Your task to perform on an android device: Do I have any events tomorrow? Image 0: 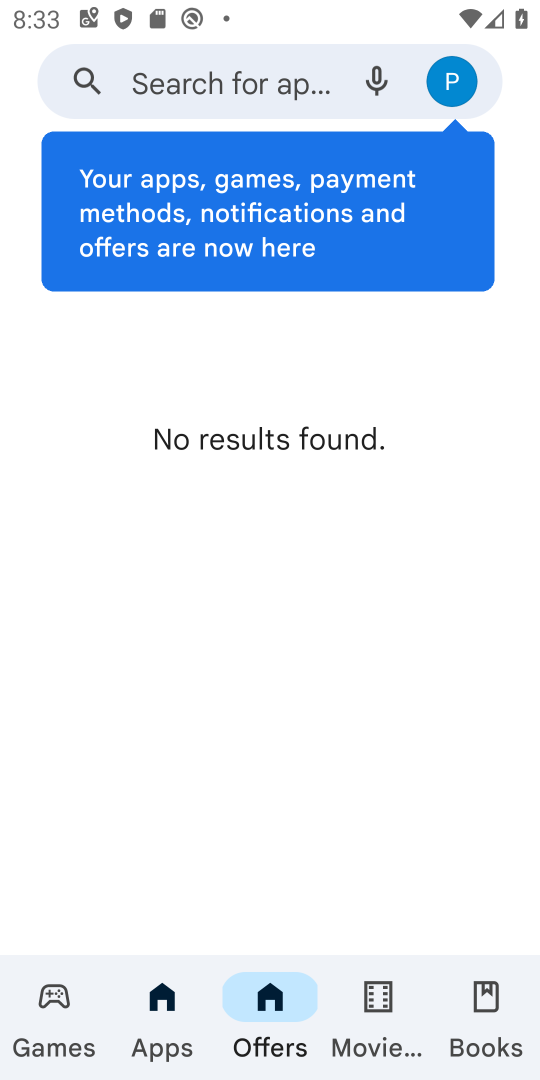
Step 0: press home button
Your task to perform on an android device: Do I have any events tomorrow? Image 1: 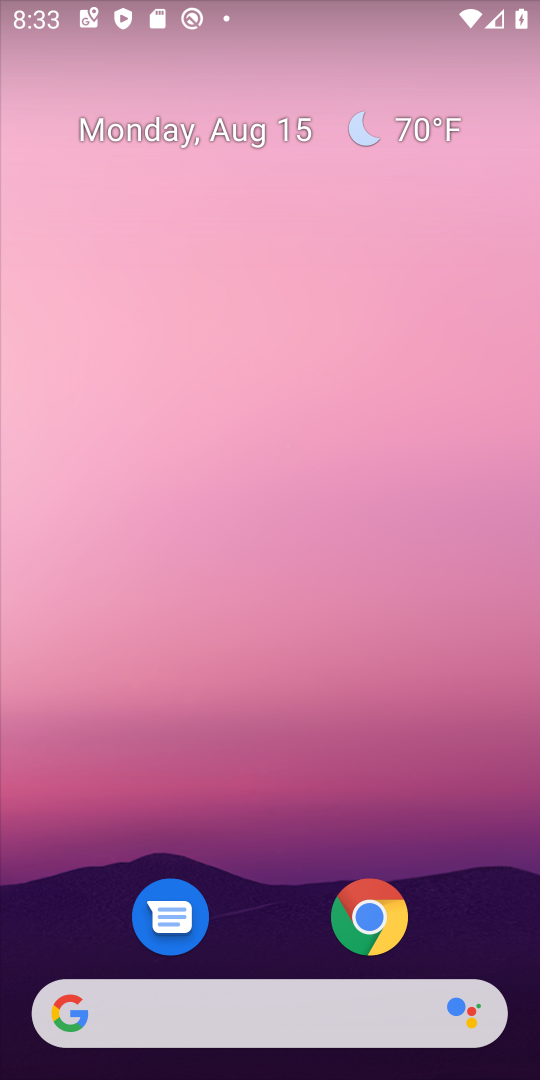
Step 1: drag from (275, 867) to (318, 1)
Your task to perform on an android device: Do I have any events tomorrow? Image 2: 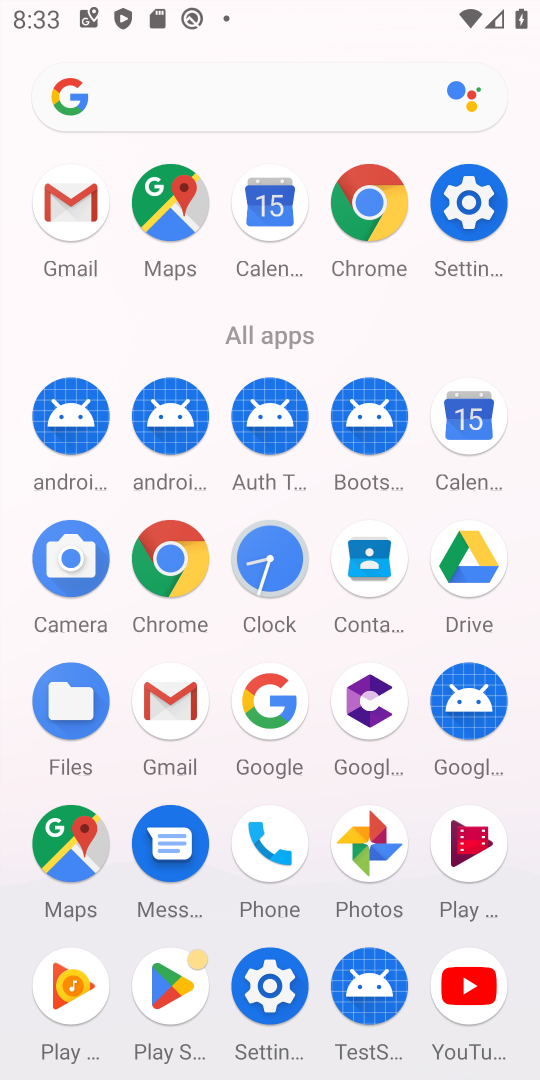
Step 2: click (272, 212)
Your task to perform on an android device: Do I have any events tomorrow? Image 3: 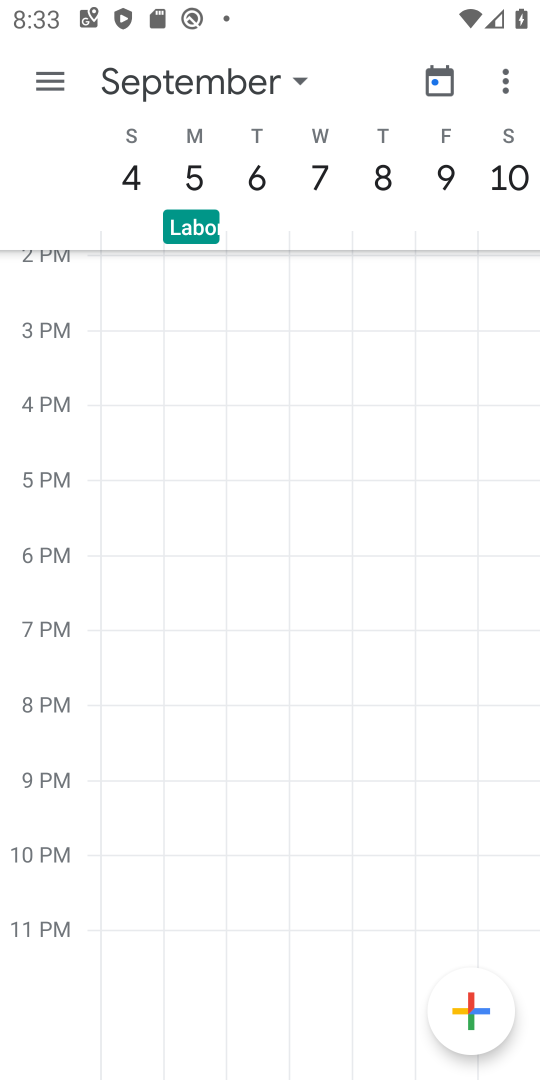
Step 3: task complete